Your task to perform on an android device: star an email in the gmail app Image 0: 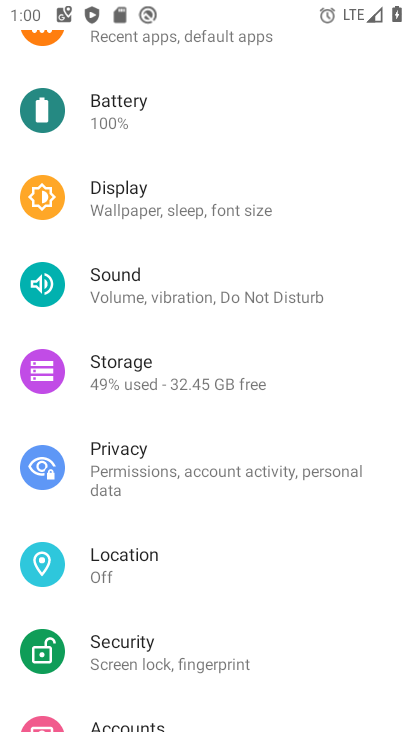
Step 0: press home button
Your task to perform on an android device: star an email in the gmail app Image 1: 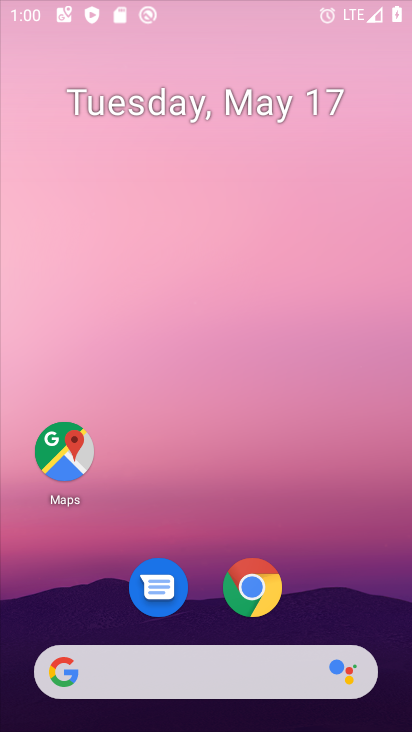
Step 1: drag from (395, 675) to (334, 31)
Your task to perform on an android device: star an email in the gmail app Image 2: 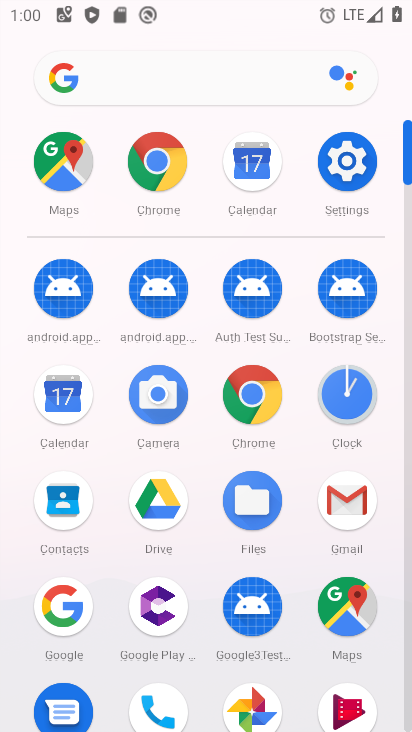
Step 2: click (343, 503)
Your task to perform on an android device: star an email in the gmail app Image 3: 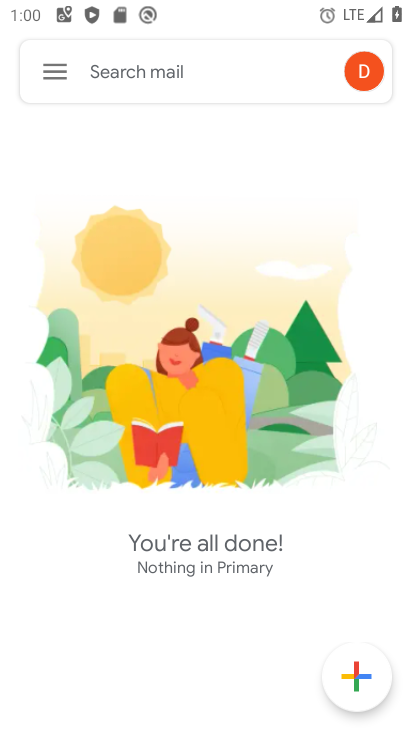
Step 3: task complete